Your task to perform on an android device: check google app version Image 0: 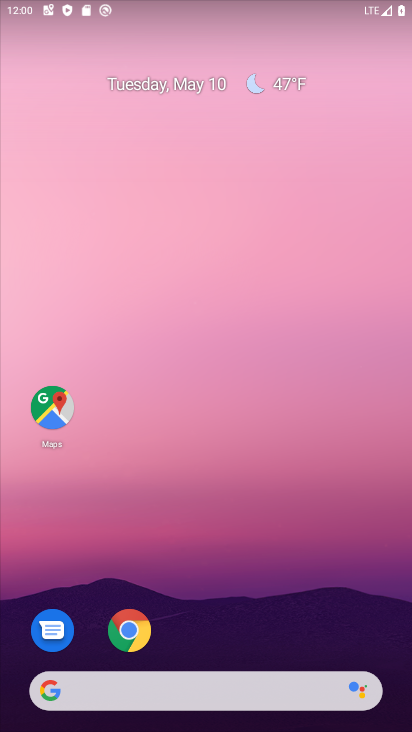
Step 0: press home button
Your task to perform on an android device: check google app version Image 1: 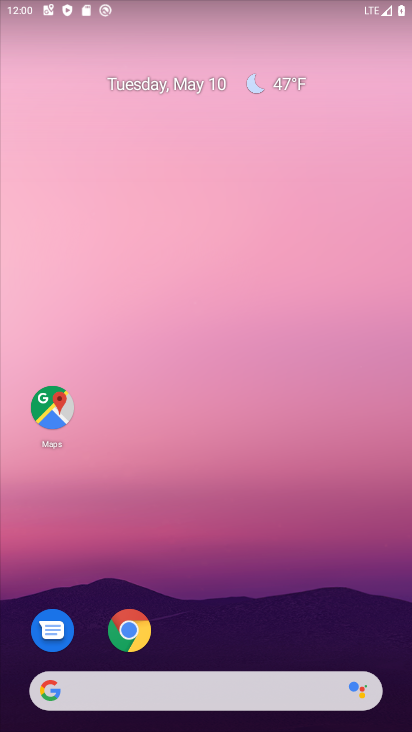
Step 1: drag from (164, 667) to (236, 268)
Your task to perform on an android device: check google app version Image 2: 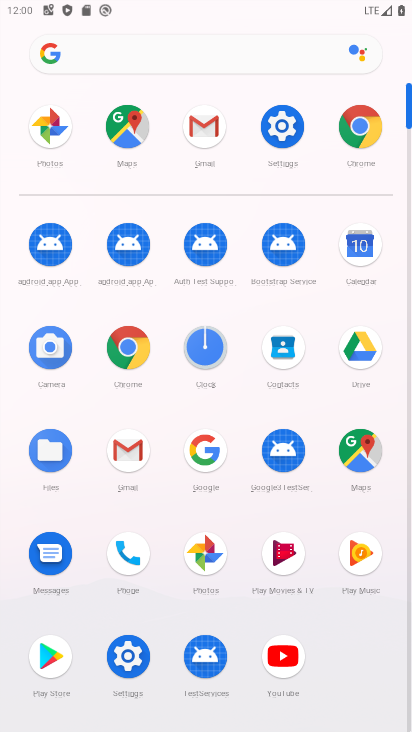
Step 2: drag from (205, 452) to (313, 302)
Your task to perform on an android device: check google app version Image 3: 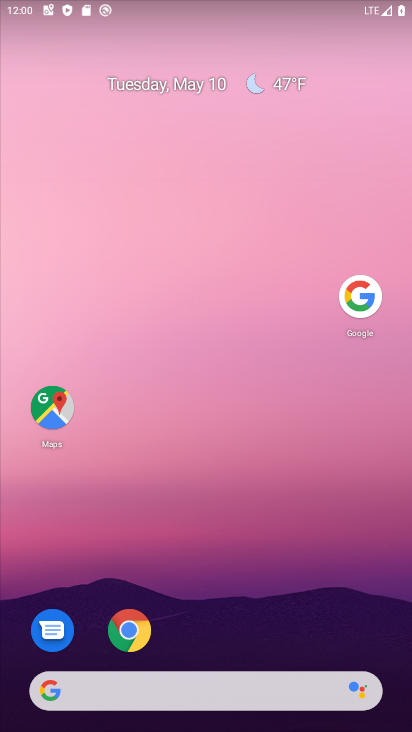
Step 3: click (367, 291)
Your task to perform on an android device: check google app version Image 4: 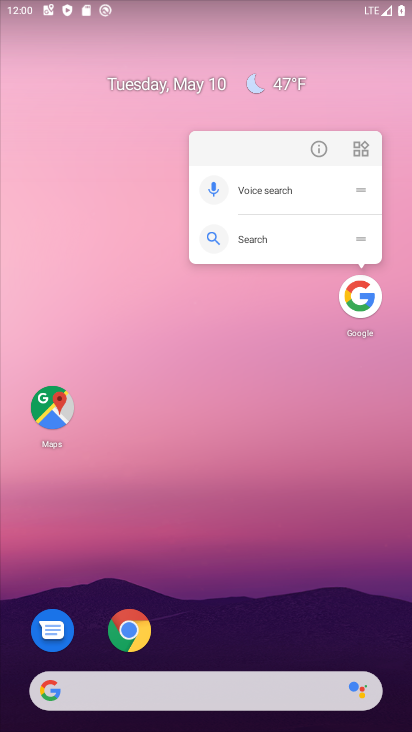
Step 4: click (320, 151)
Your task to perform on an android device: check google app version Image 5: 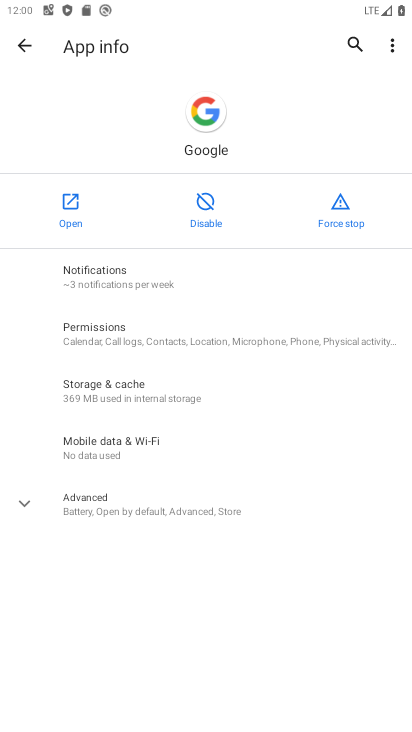
Step 5: click (75, 508)
Your task to perform on an android device: check google app version Image 6: 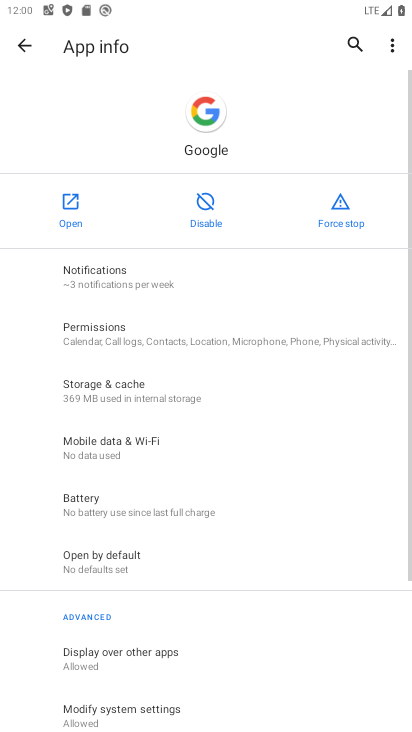
Step 6: task complete